Your task to perform on an android device: turn on wifi Image 0: 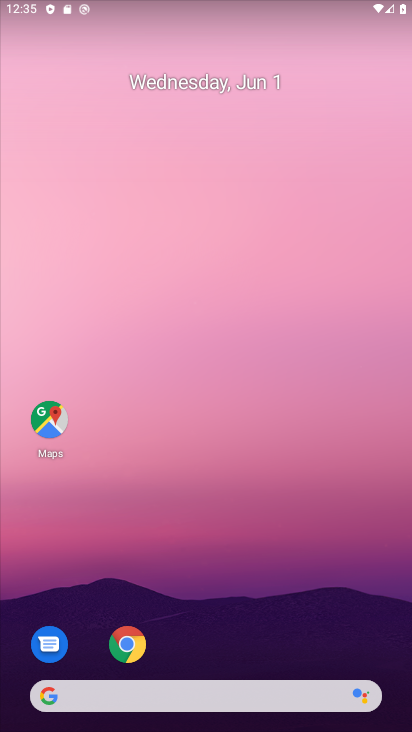
Step 0: drag from (373, 3) to (1, 572)
Your task to perform on an android device: turn on wifi Image 1: 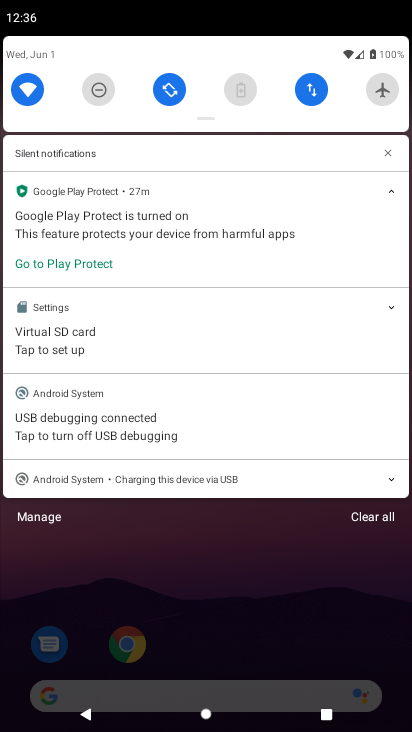
Step 1: task complete